Your task to perform on an android device: Show the shopping cart on target.com. Add "alienware aurora" to the cart on target.com Image 0: 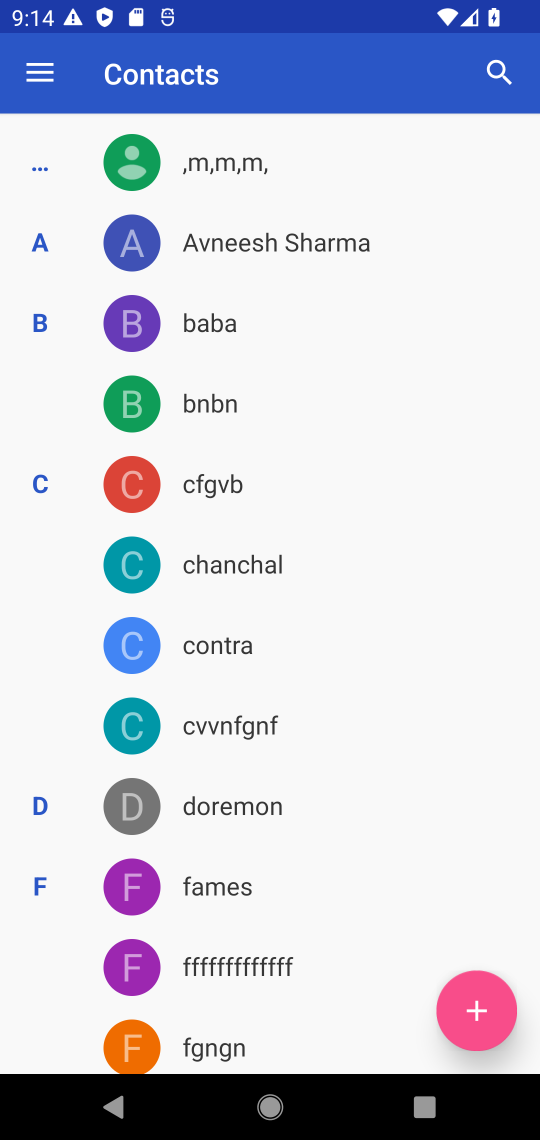
Step 0: press home button
Your task to perform on an android device: Show the shopping cart on target.com. Add "alienware aurora" to the cart on target.com Image 1: 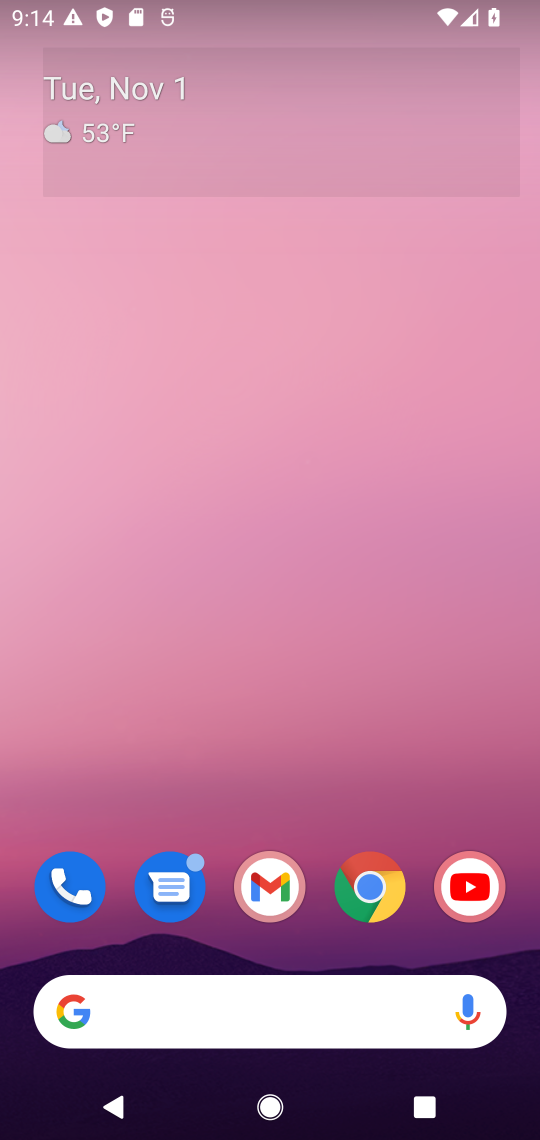
Step 1: drag from (196, 1021) to (159, 328)
Your task to perform on an android device: Show the shopping cart on target.com. Add "alienware aurora" to the cart on target.com Image 2: 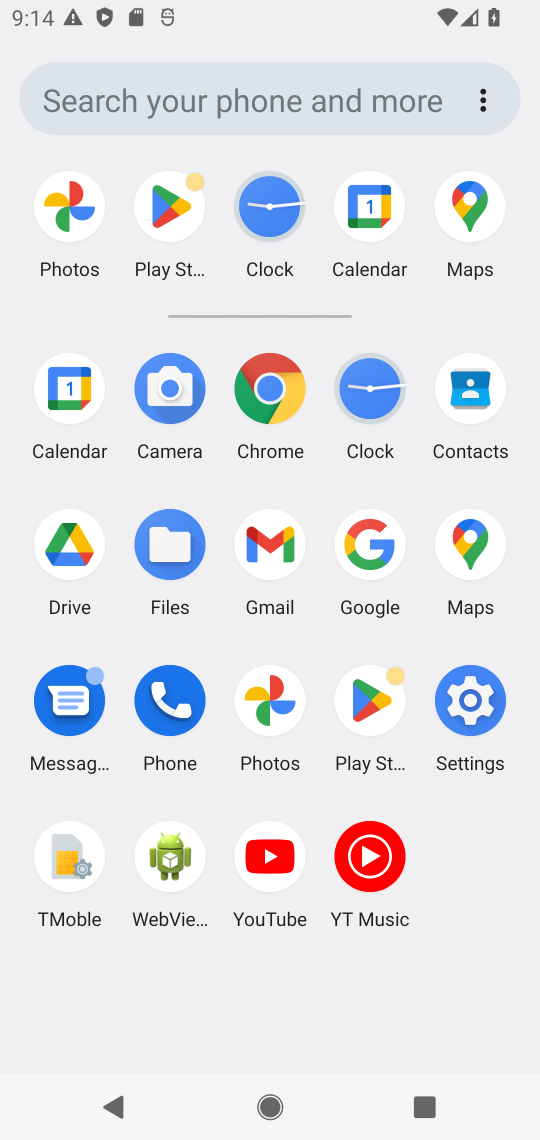
Step 2: click (367, 533)
Your task to perform on an android device: Show the shopping cart on target.com. Add "alienware aurora" to the cart on target.com Image 3: 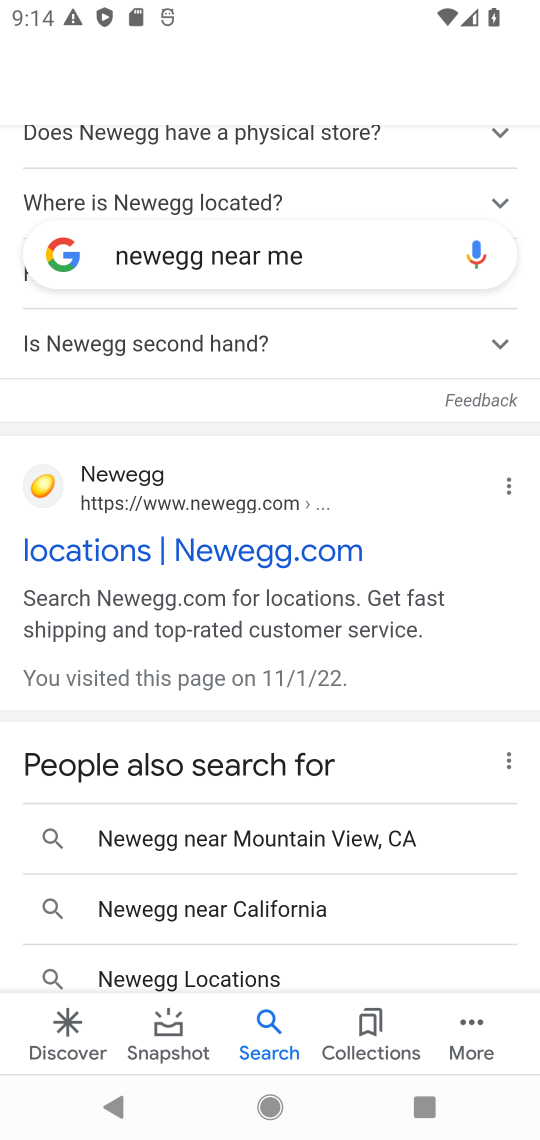
Step 3: click (228, 252)
Your task to perform on an android device: Show the shopping cart on target.com. Add "alienware aurora" to the cart on target.com Image 4: 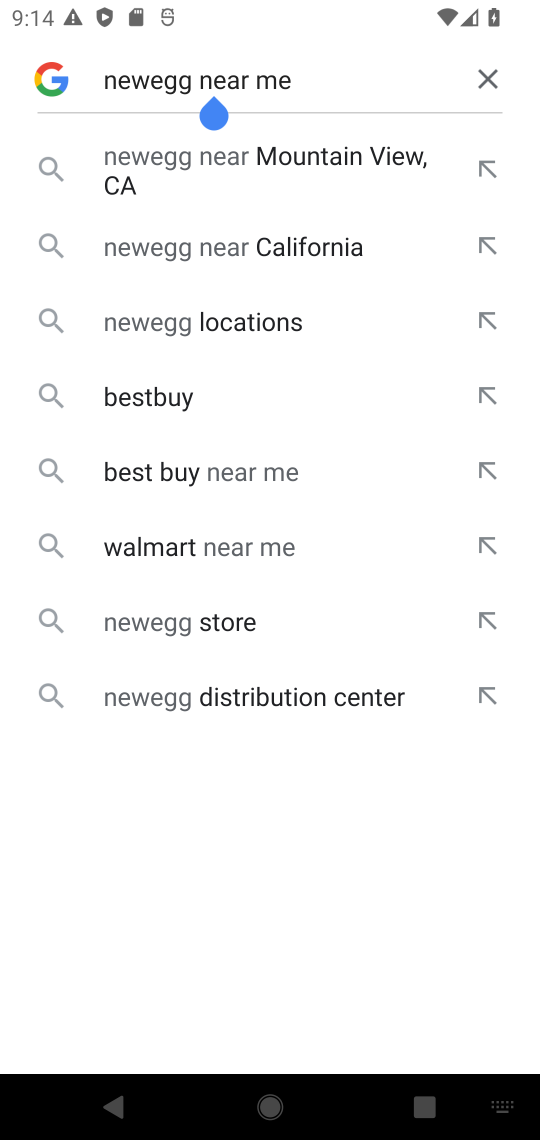
Step 4: click (494, 62)
Your task to perform on an android device: Show the shopping cart on target.com. Add "alienware aurora" to the cart on target.com Image 5: 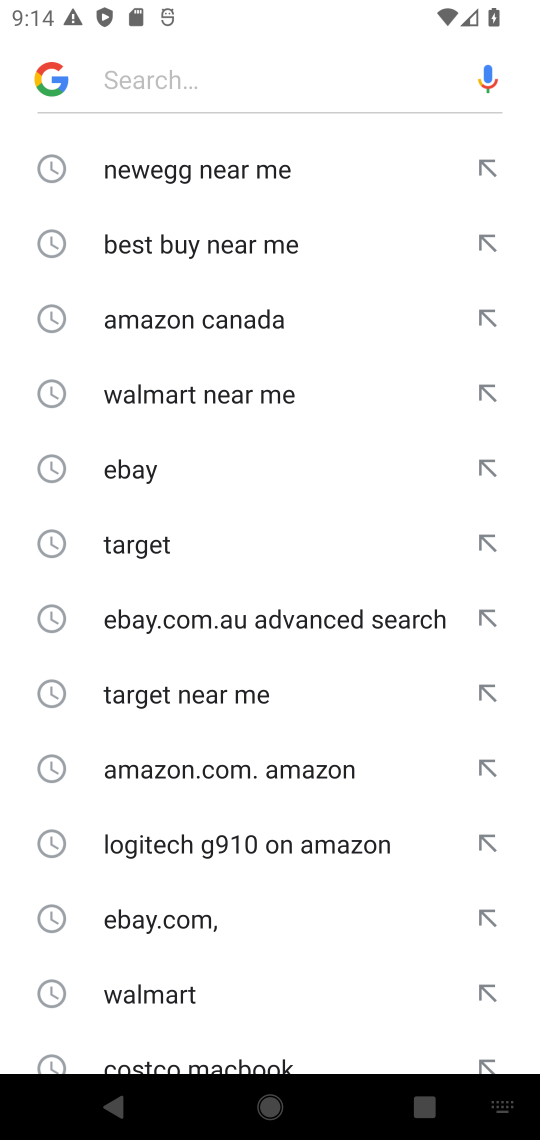
Step 5: click (183, 77)
Your task to perform on an android device: Show the shopping cart on target.com. Add "alienware aurora" to the cart on target.com Image 6: 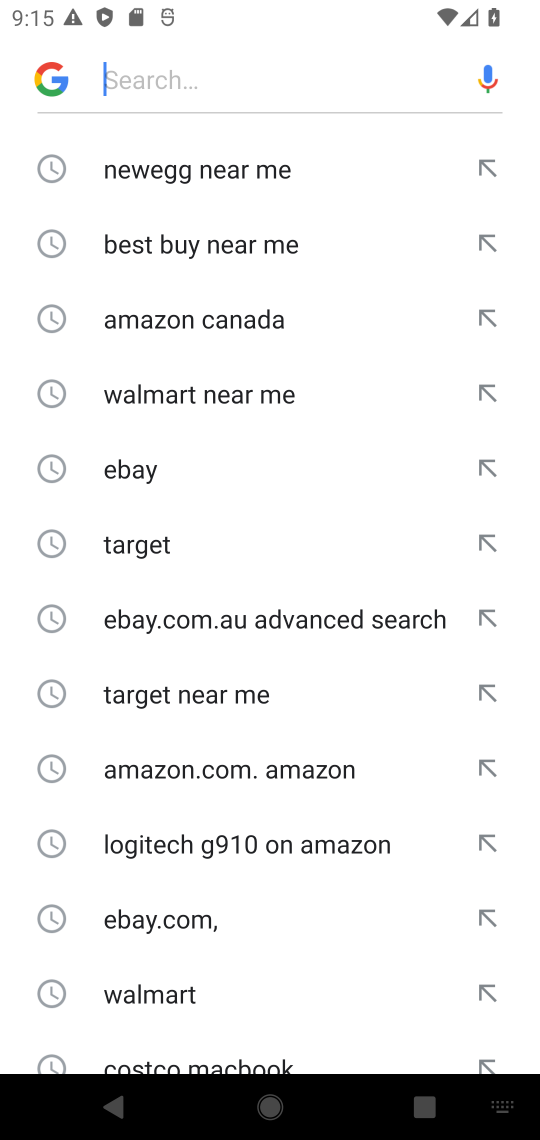
Step 6: type " target.com.  "
Your task to perform on an android device: Show the shopping cart on target.com. Add "alienware aurora" to the cart on target.com Image 7: 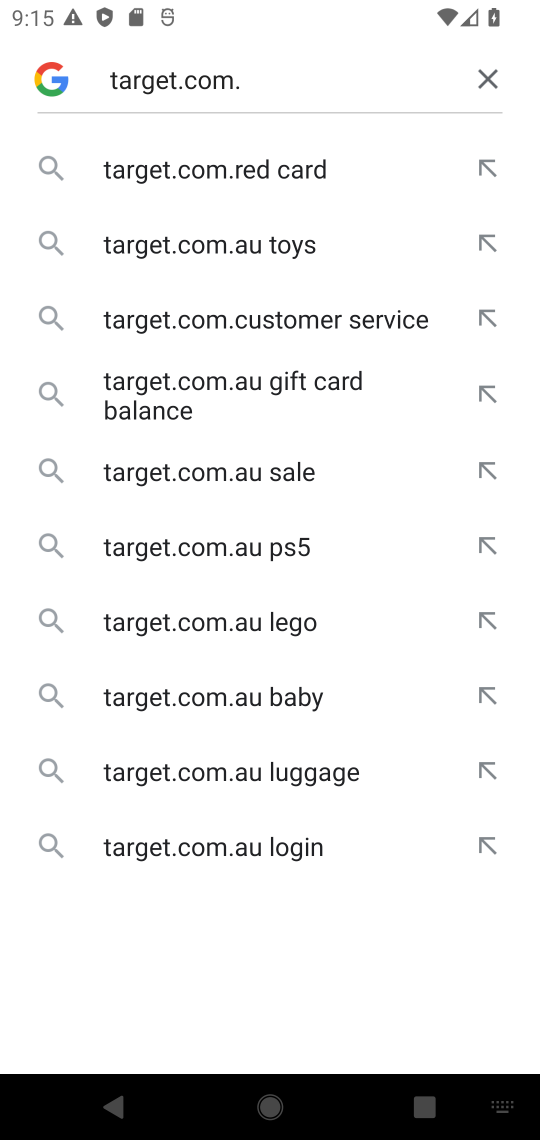
Step 7: click (198, 163)
Your task to perform on an android device: Show the shopping cart on target.com. Add "alienware aurora" to the cart on target.com Image 8: 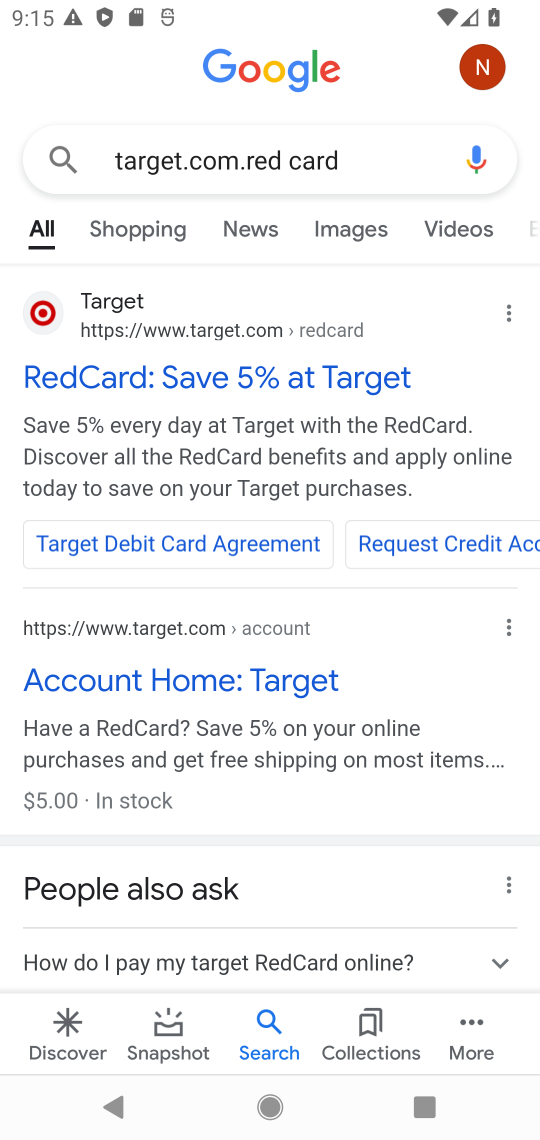
Step 8: drag from (183, 798) to (228, 282)
Your task to perform on an android device: Show the shopping cart on target.com. Add "alienware aurora" to the cart on target.com Image 9: 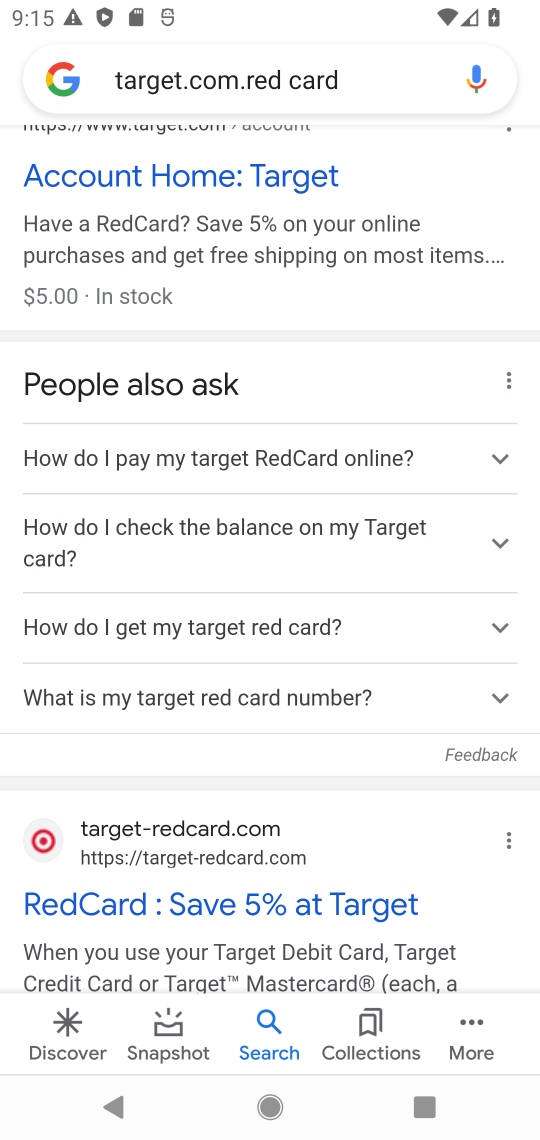
Step 9: click (43, 831)
Your task to perform on an android device: Show the shopping cart on target.com. Add "alienware aurora" to the cart on target.com Image 10: 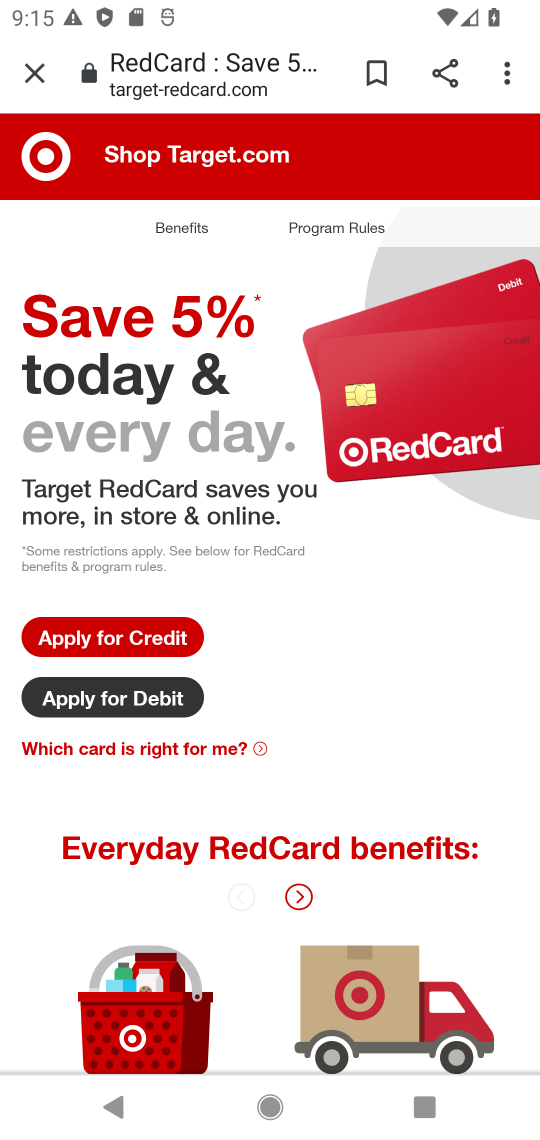
Step 10: drag from (292, 964) to (386, 271)
Your task to perform on an android device: Show the shopping cart on target.com. Add "alienware aurora" to the cart on target.com Image 11: 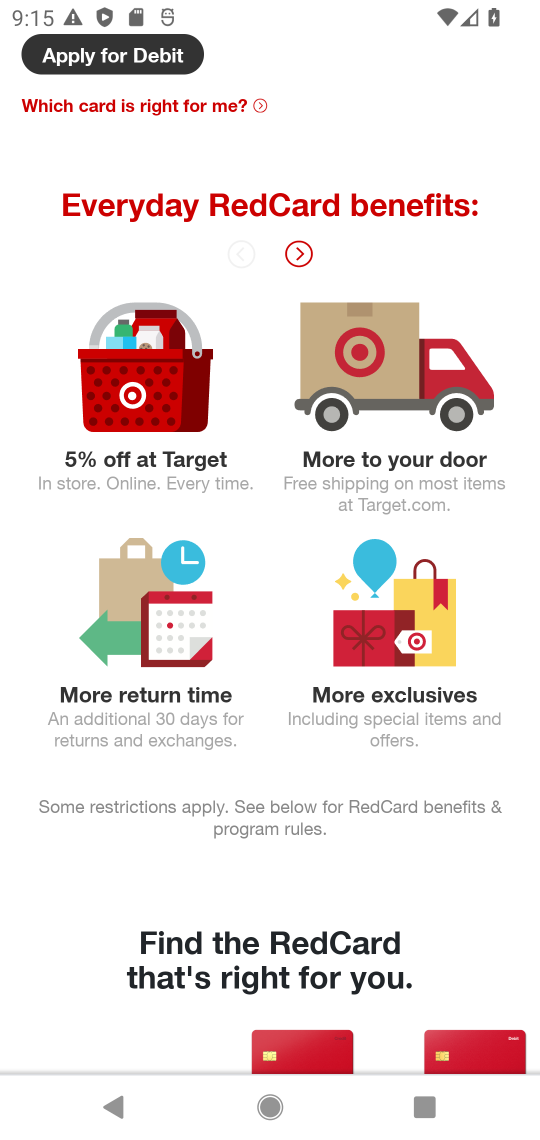
Step 11: press back button
Your task to perform on an android device: Show the shopping cart on target.com. Add "alienware aurora" to the cart on target.com Image 12: 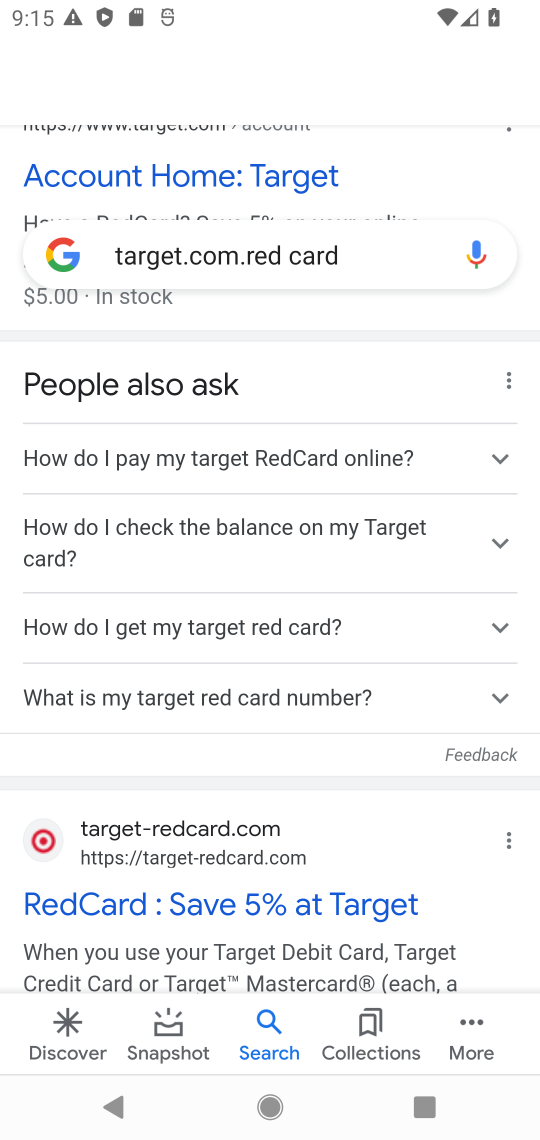
Step 12: drag from (174, 349) to (118, 893)
Your task to perform on an android device: Show the shopping cart on target.com. Add "alienware aurora" to the cart on target.com Image 13: 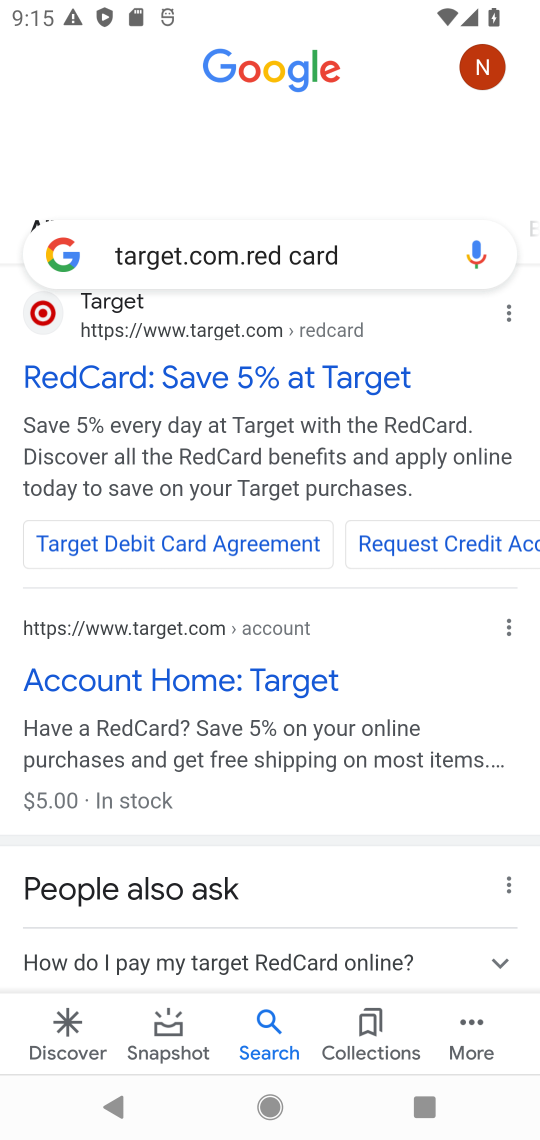
Step 13: drag from (42, 332) to (72, 901)
Your task to perform on an android device: Show the shopping cart on target.com. Add "alienware aurora" to the cart on target.com Image 14: 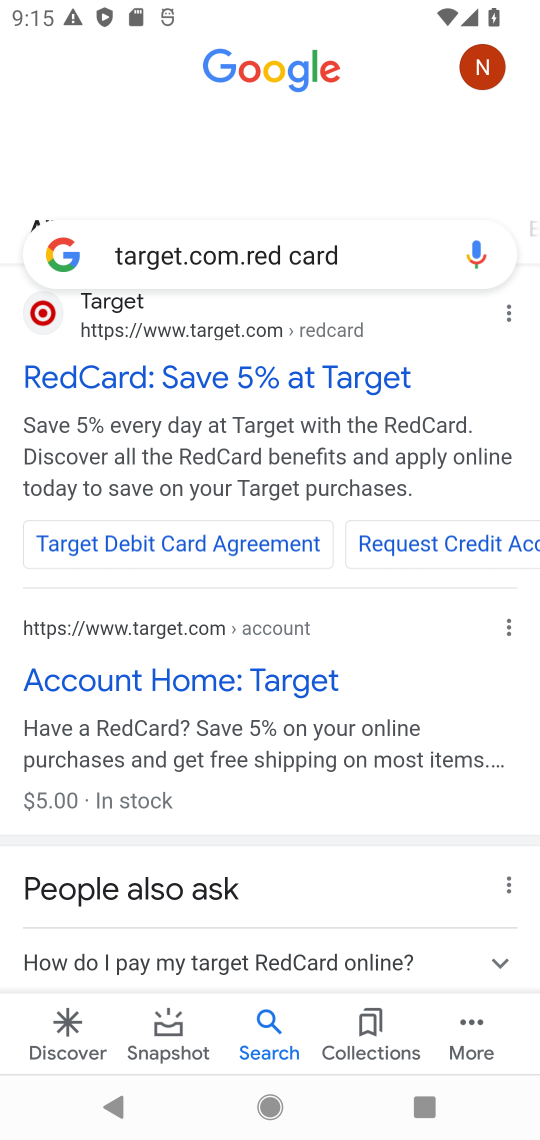
Step 14: click (40, 314)
Your task to perform on an android device: Show the shopping cart on target.com. Add "alienware aurora" to the cart on target.com Image 15: 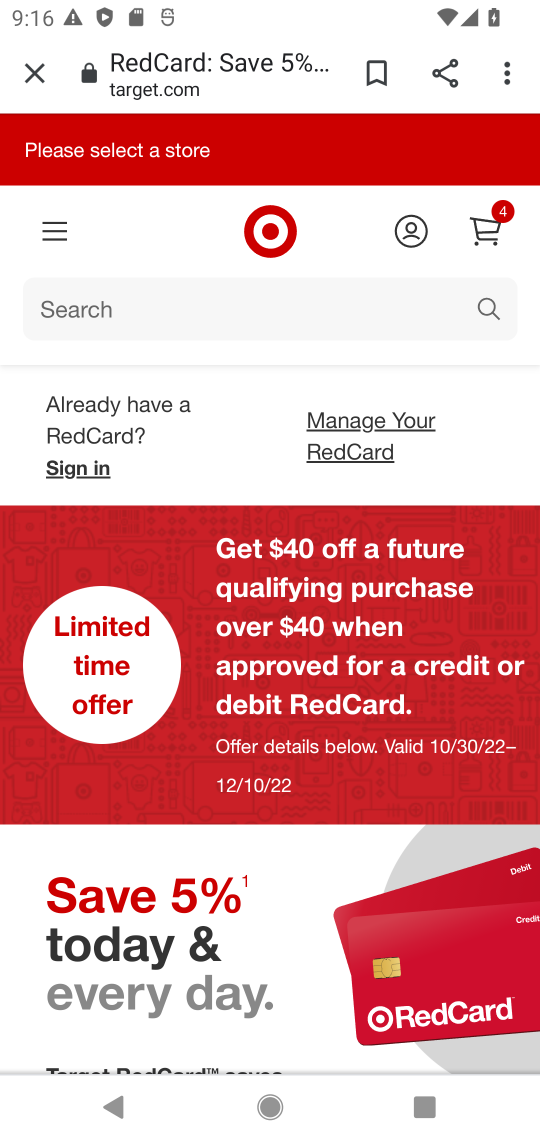
Step 15: click (199, 297)
Your task to perform on an android device: Show the shopping cart on target.com. Add "alienware aurora" to the cart on target.com Image 16: 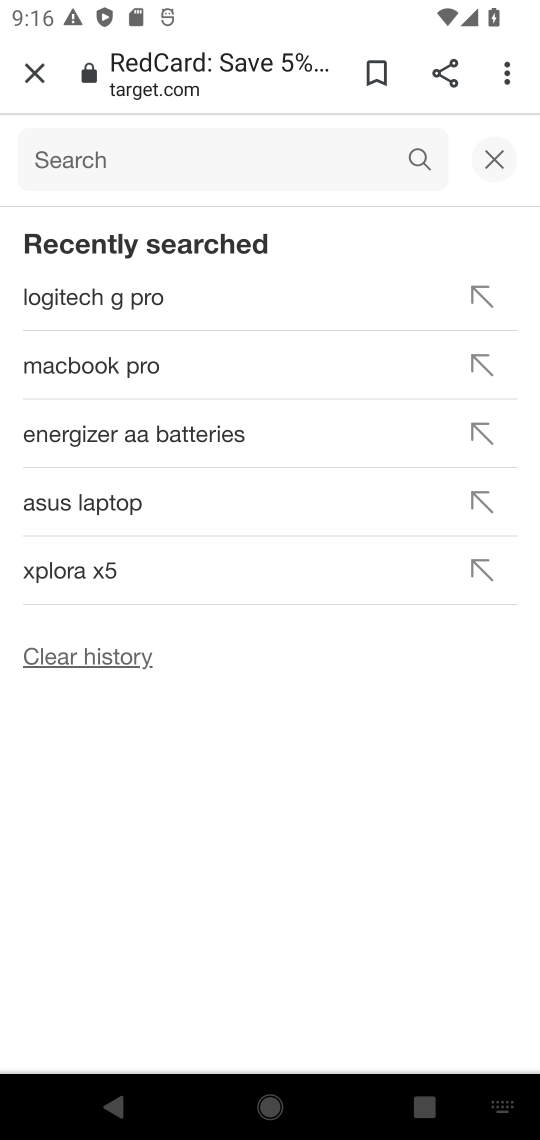
Step 16: type "alienware aurora "
Your task to perform on an android device: Show the shopping cart on target.com. Add "alienware aurora" to the cart on target.com Image 17: 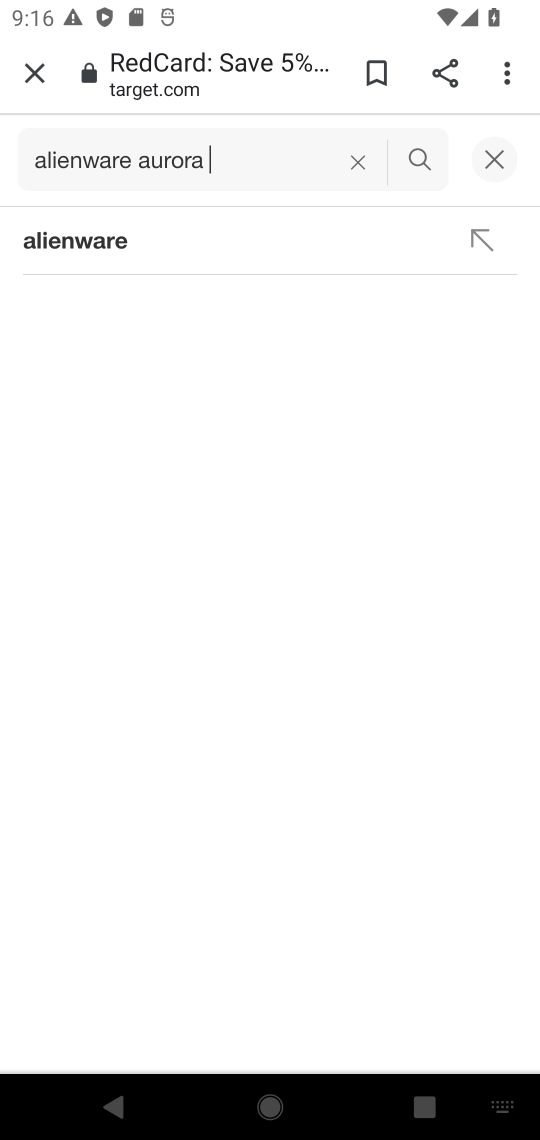
Step 17: click (97, 240)
Your task to perform on an android device: Show the shopping cart on target.com. Add "alienware aurora" to the cart on target.com Image 18: 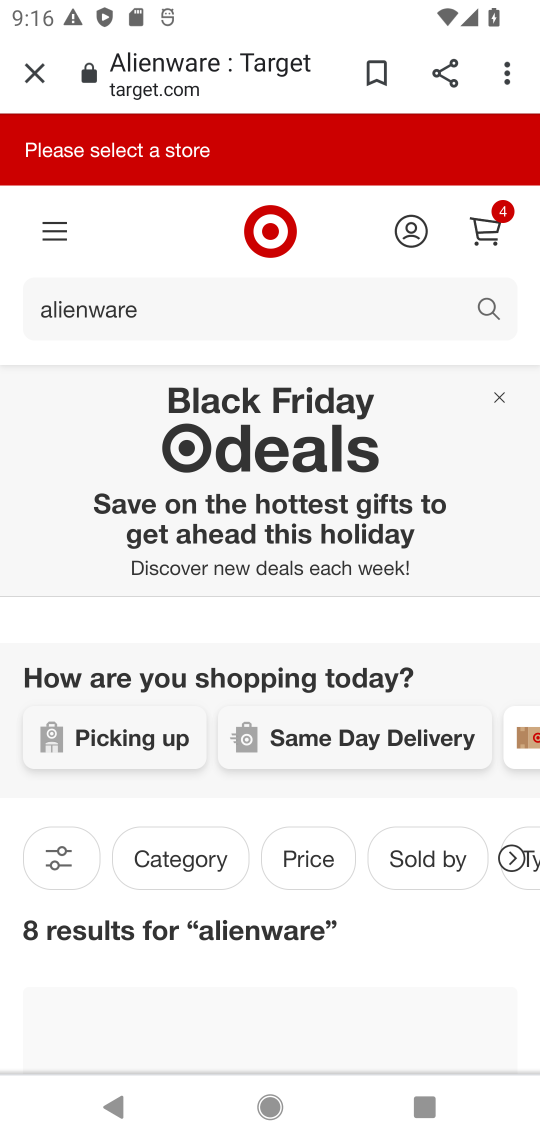
Step 18: drag from (169, 888) to (256, 348)
Your task to perform on an android device: Show the shopping cart on target.com. Add "alienware aurora" to the cart on target.com Image 19: 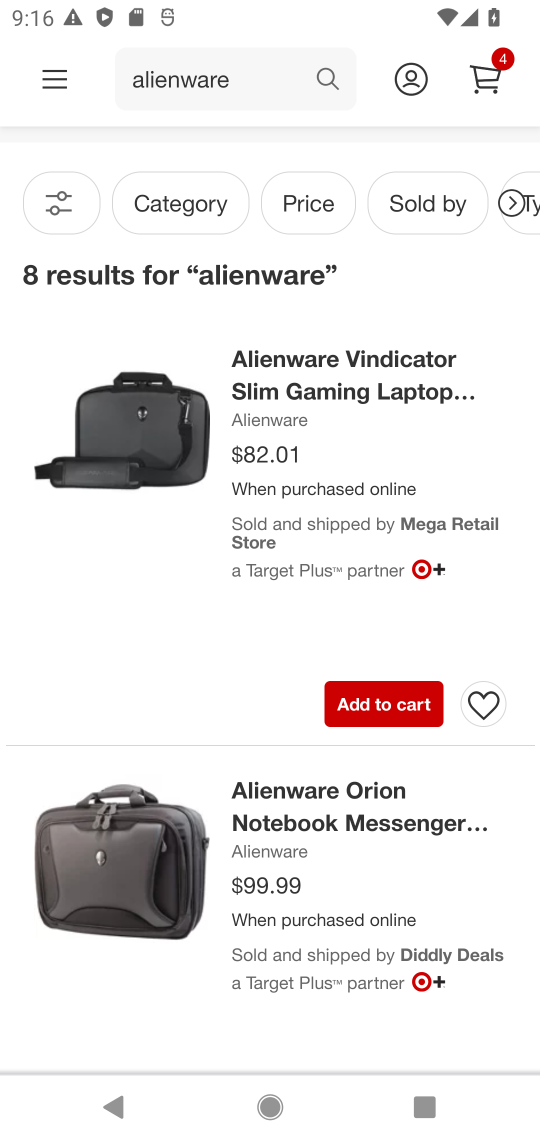
Step 19: click (375, 701)
Your task to perform on an android device: Show the shopping cart on target.com. Add "alienware aurora" to the cart on target.com Image 20: 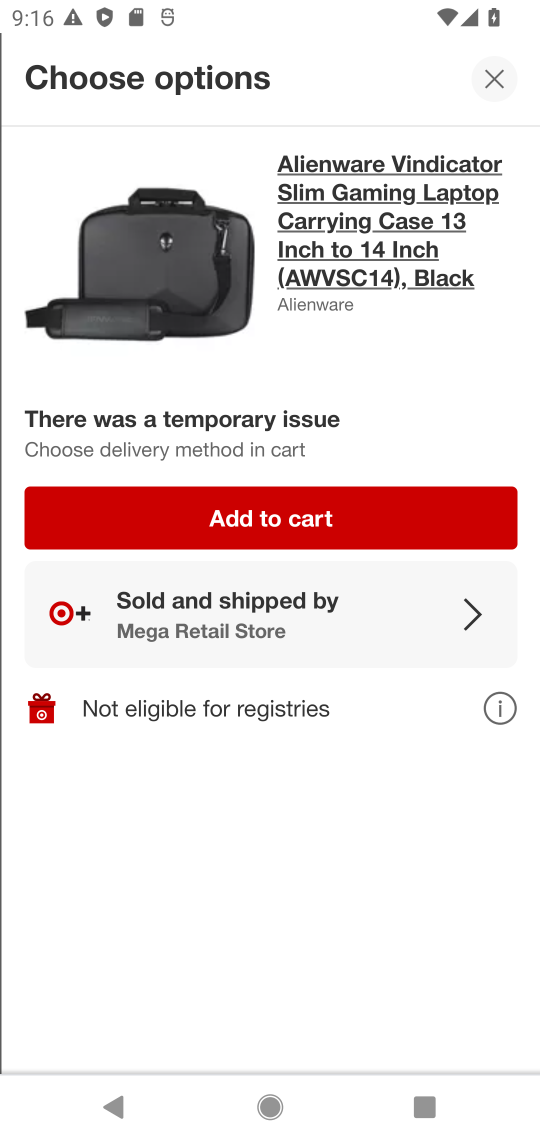
Step 20: click (285, 513)
Your task to perform on an android device: Show the shopping cart on target.com. Add "alienware aurora" to the cart on target.com Image 21: 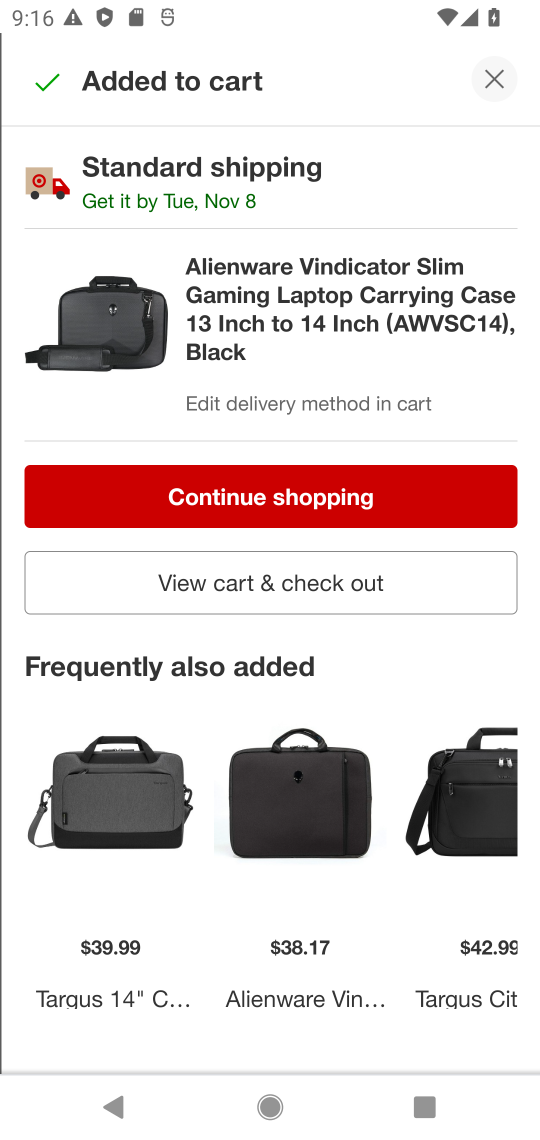
Step 21: task complete